Your task to perform on an android device: Set the phone to "Do not disturb". Image 0: 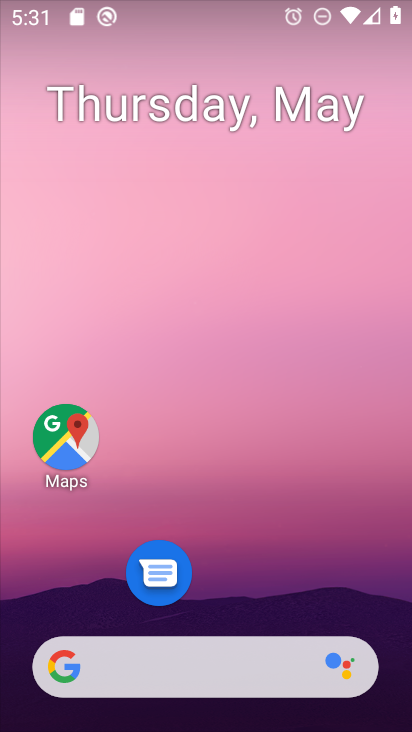
Step 0: drag from (228, 629) to (132, 174)
Your task to perform on an android device: Set the phone to "Do not disturb". Image 1: 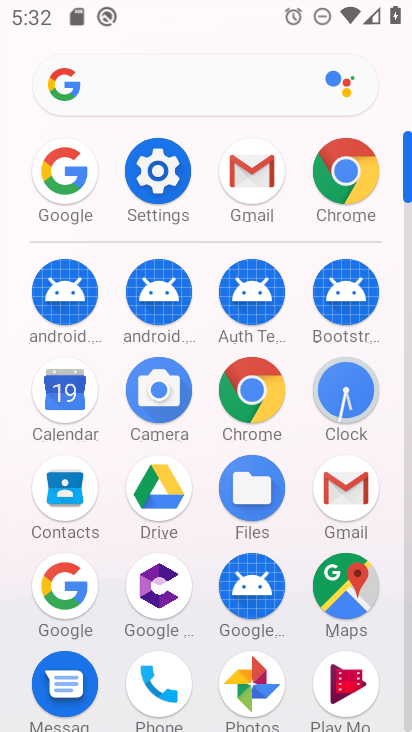
Step 1: click (165, 177)
Your task to perform on an android device: Set the phone to "Do not disturb". Image 2: 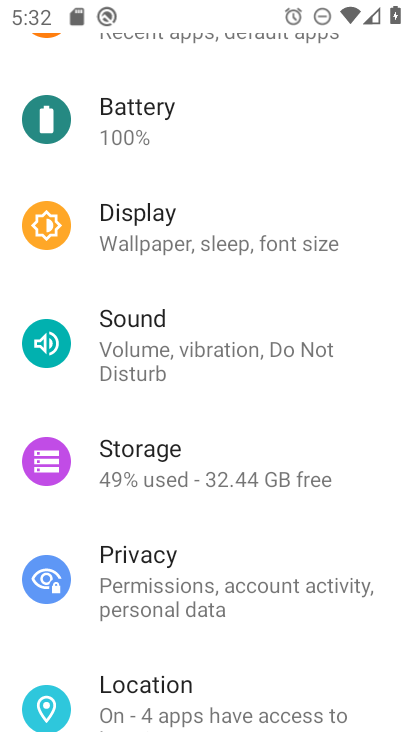
Step 2: click (141, 331)
Your task to perform on an android device: Set the phone to "Do not disturb". Image 3: 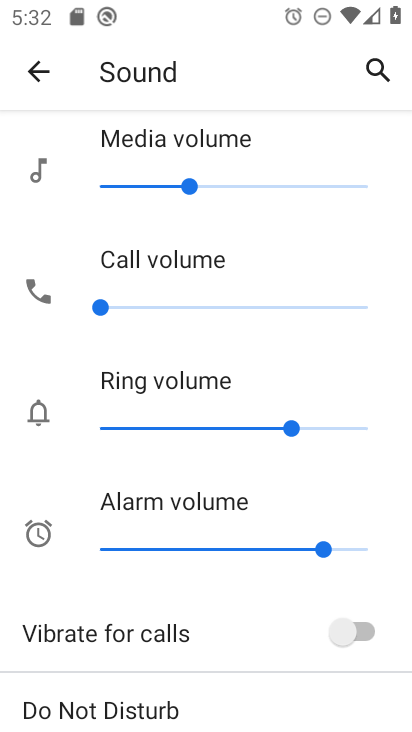
Step 3: click (141, 709)
Your task to perform on an android device: Set the phone to "Do not disturb". Image 4: 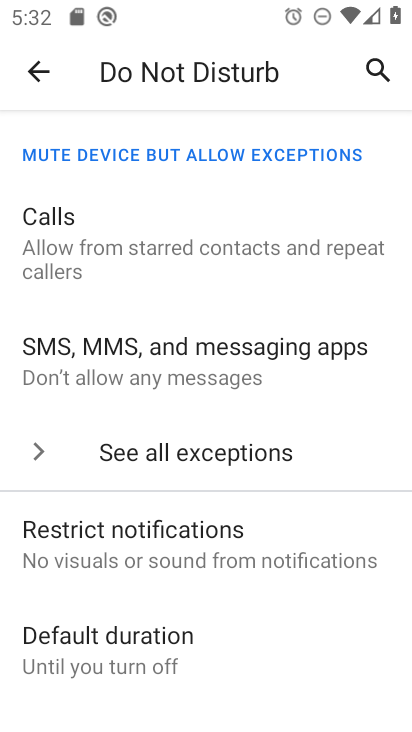
Step 4: task complete